Your task to perform on an android device: Open the web browser Image 0: 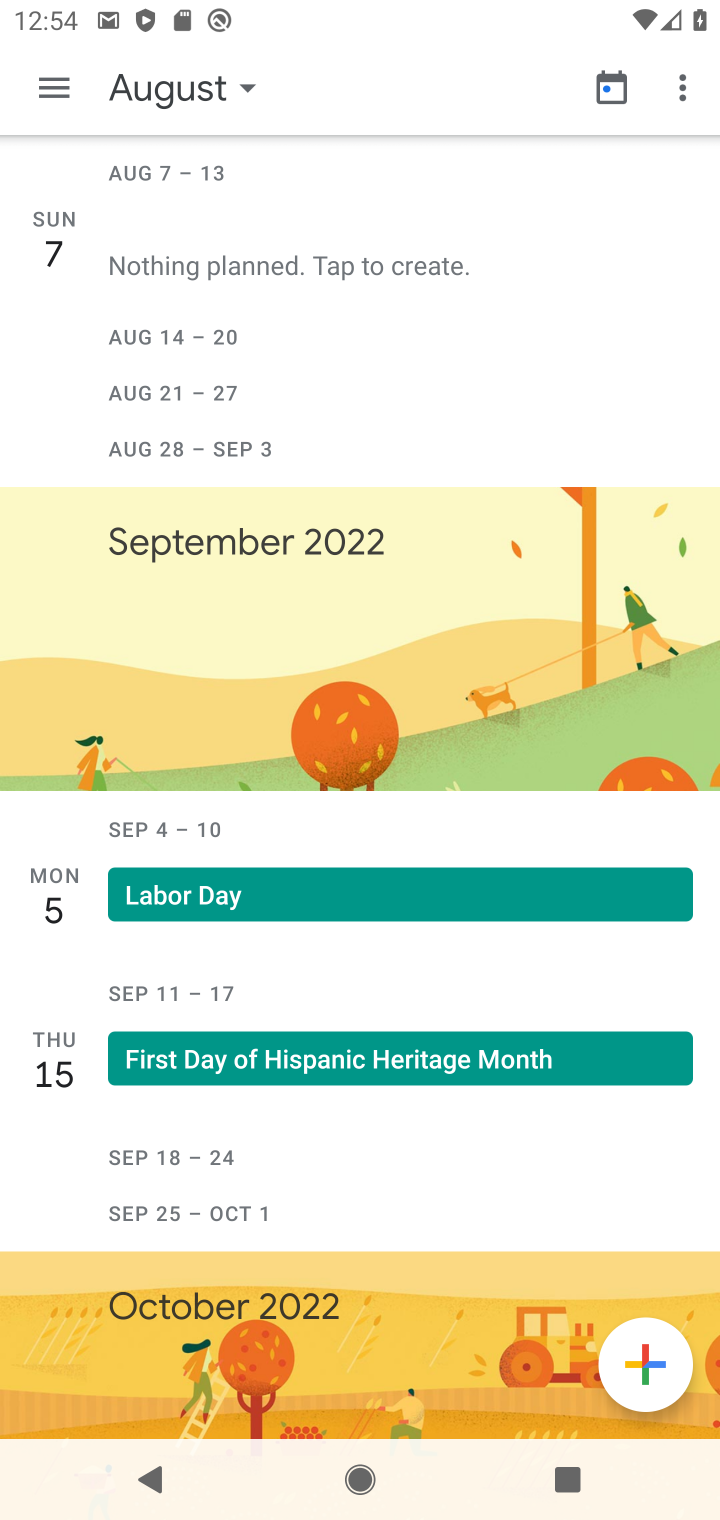
Step 0: press home button
Your task to perform on an android device: Open the web browser Image 1: 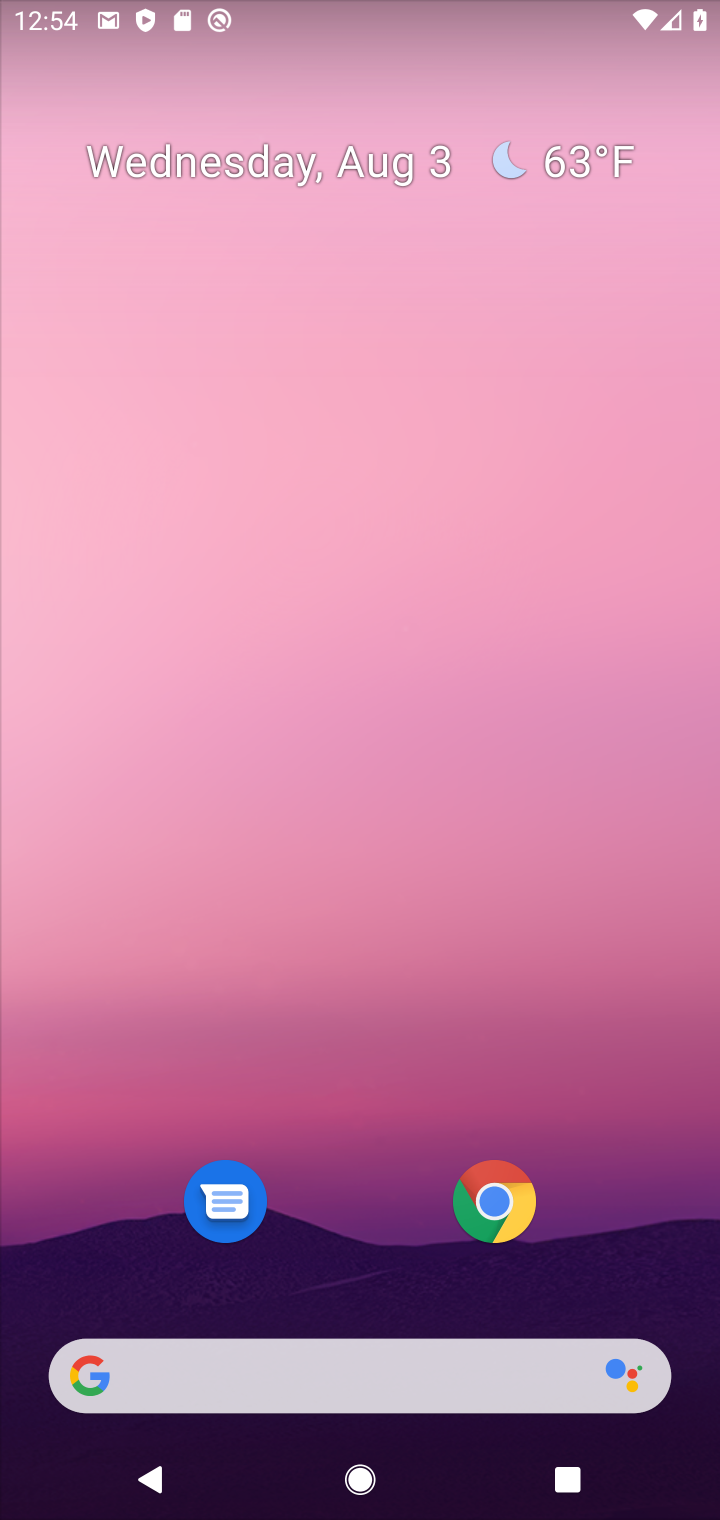
Step 1: click (504, 1204)
Your task to perform on an android device: Open the web browser Image 2: 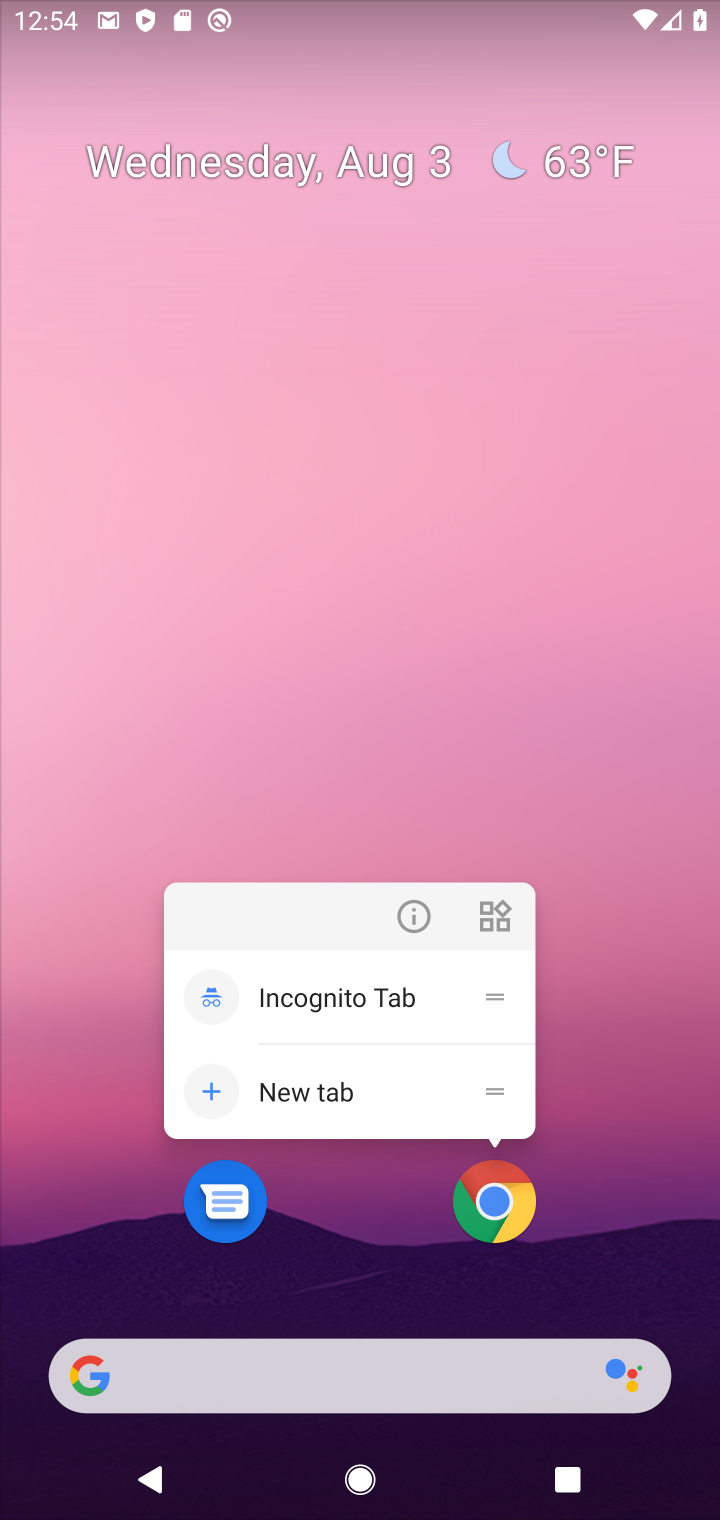
Step 2: click (504, 1202)
Your task to perform on an android device: Open the web browser Image 3: 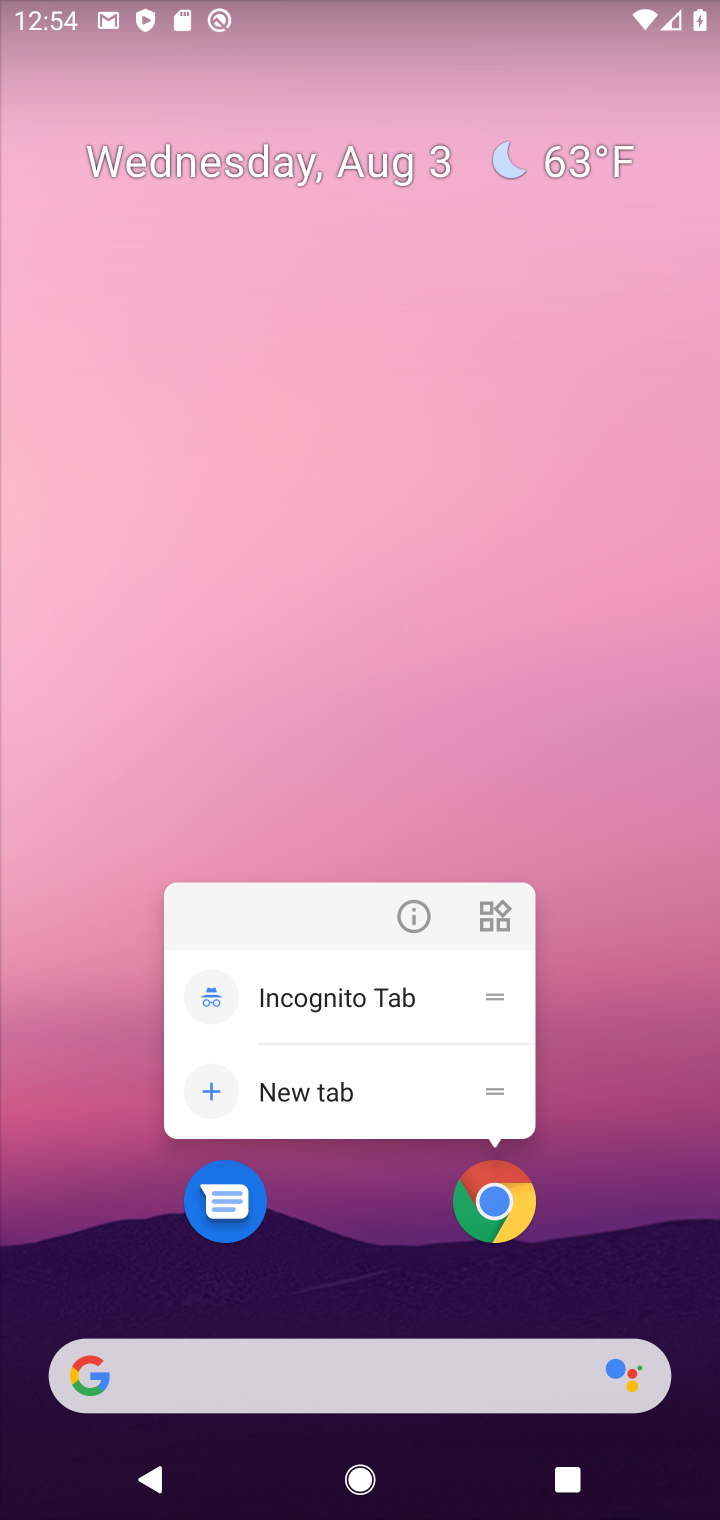
Step 3: click (483, 1196)
Your task to perform on an android device: Open the web browser Image 4: 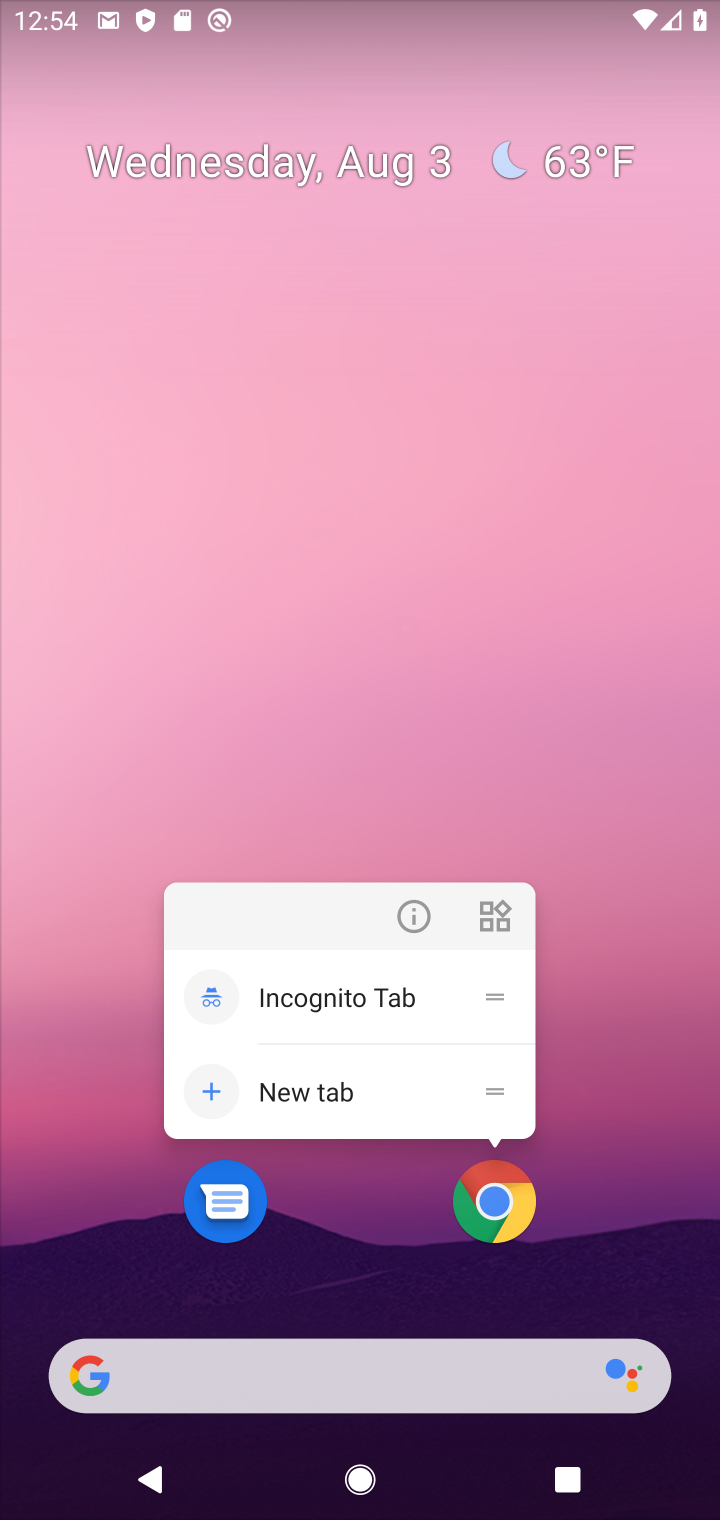
Step 4: click (483, 1198)
Your task to perform on an android device: Open the web browser Image 5: 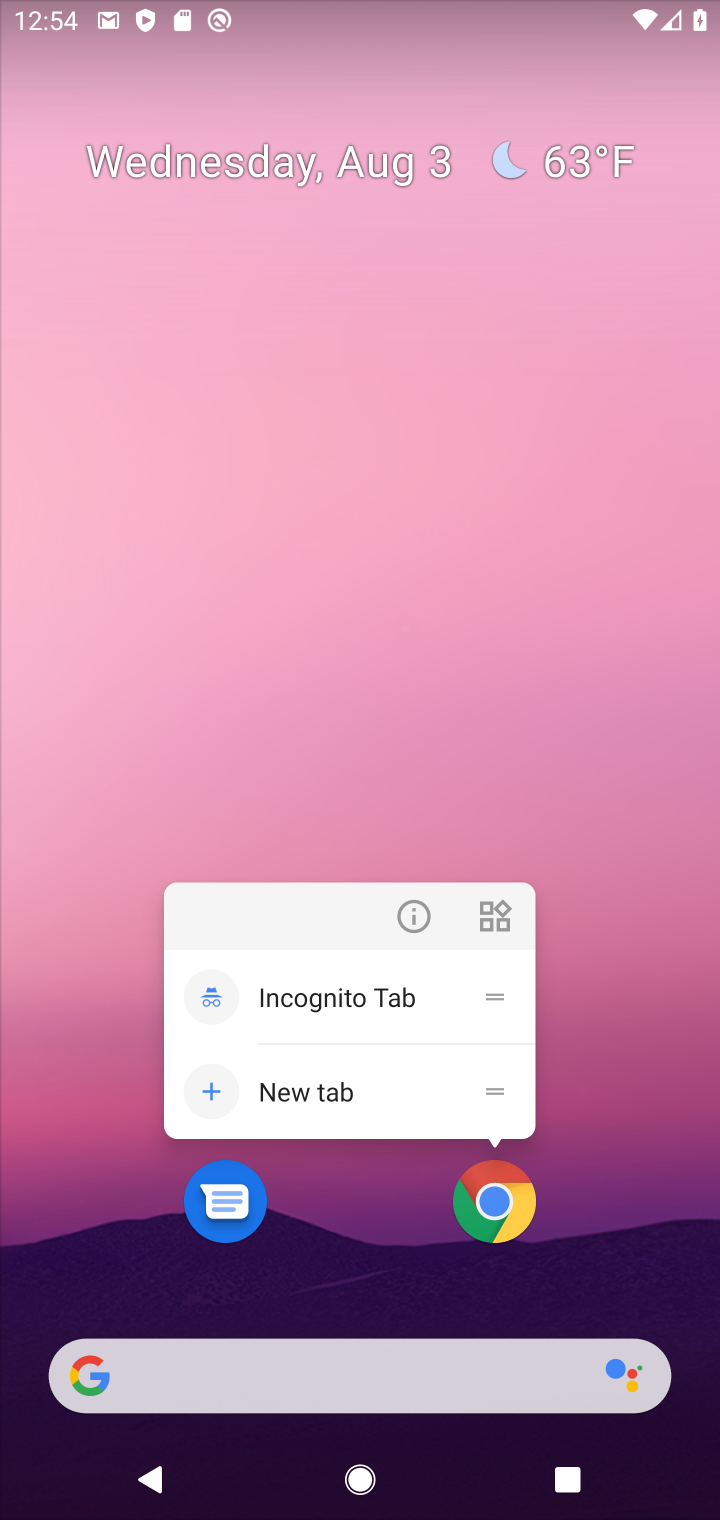
Step 5: click (483, 1198)
Your task to perform on an android device: Open the web browser Image 6: 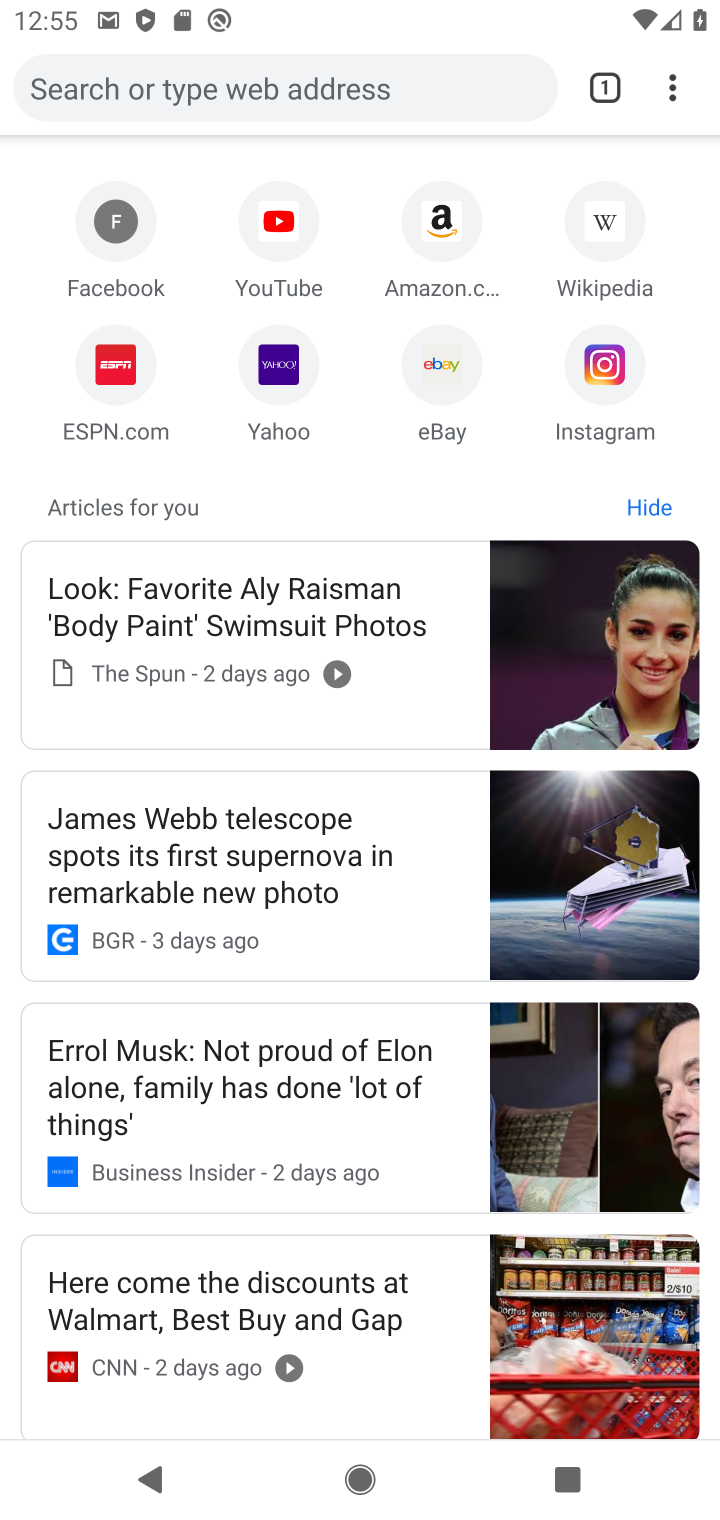
Step 6: task complete